Your task to perform on an android device: change keyboard looks Image 0: 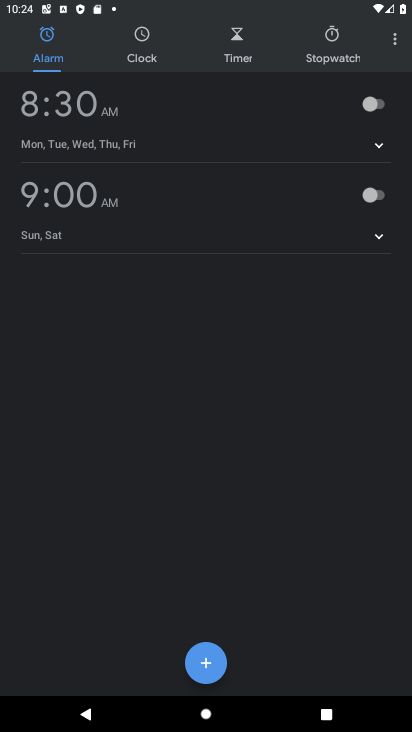
Step 0: press home button
Your task to perform on an android device: change keyboard looks Image 1: 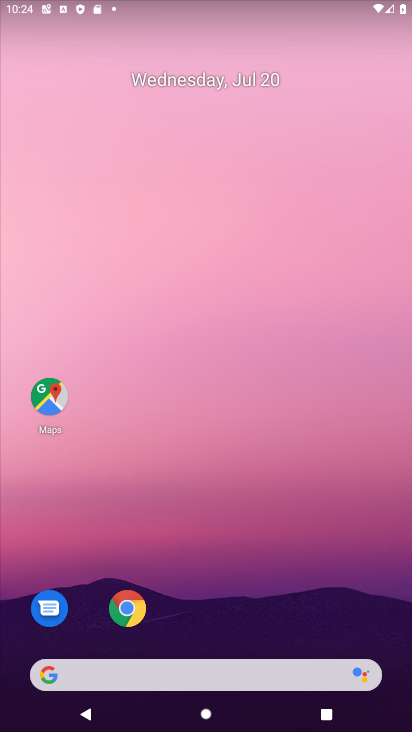
Step 1: drag from (212, 588) to (257, 157)
Your task to perform on an android device: change keyboard looks Image 2: 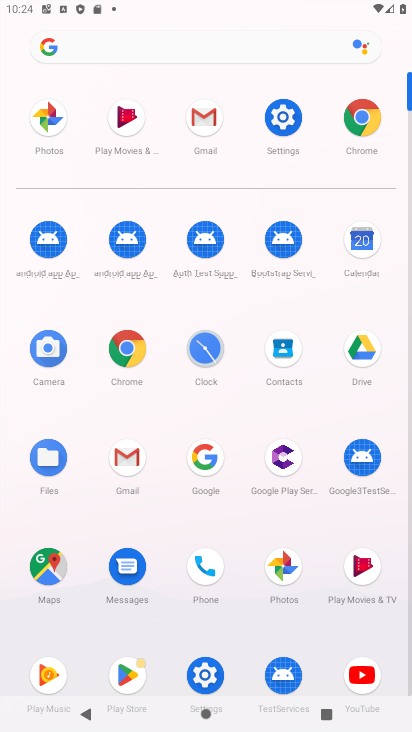
Step 2: click (286, 128)
Your task to perform on an android device: change keyboard looks Image 3: 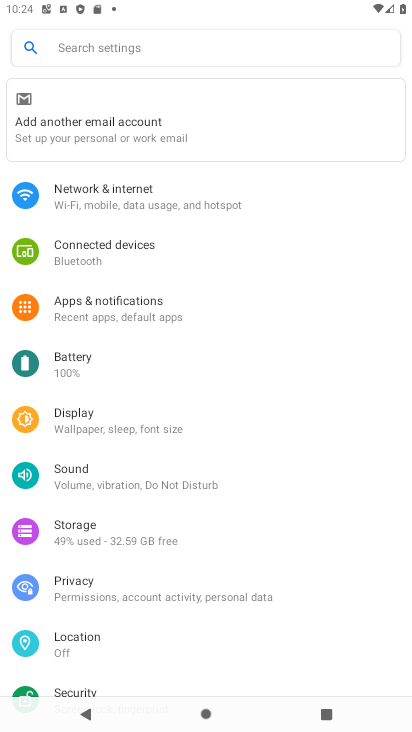
Step 3: task complete